Your task to perform on an android device: Open calendar and show me the second week of next month Image 0: 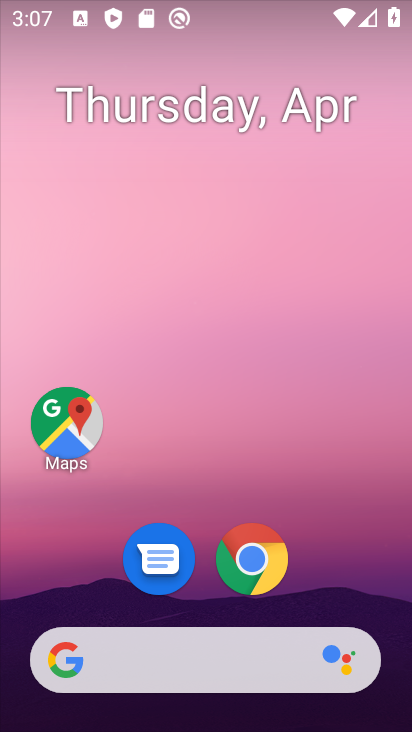
Step 0: drag from (224, 614) to (276, 249)
Your task to perform on an android device: Open calendar and show me the second week of next month Image 1: 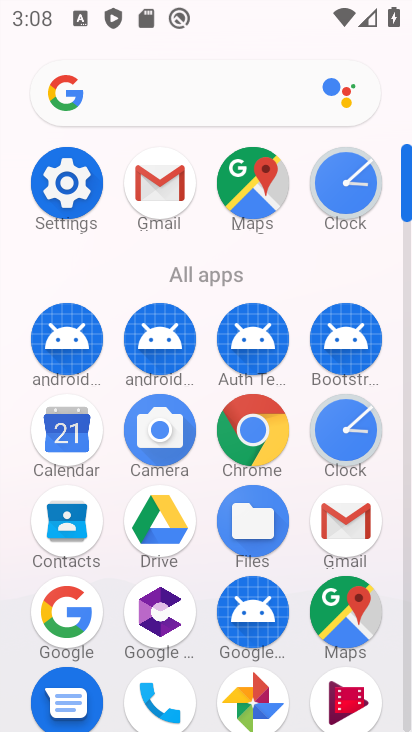
Step 1: click (72, 429)
Your task to perform on an android device: Open calendar and show me the second week of next month Image 2: 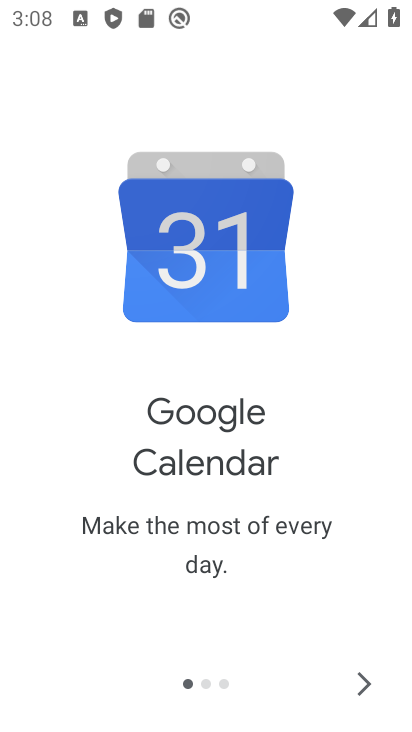
Step 2: click (354, 678)
Your task to perform on an android device: Open calendar and show me the second week of next month Image 3: 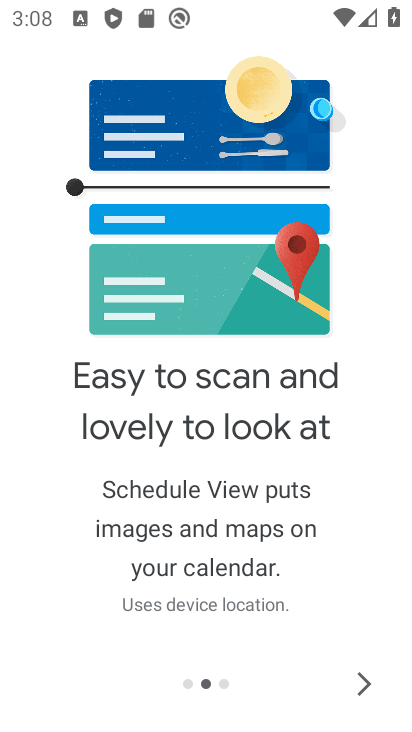
Step 3: click (354, 678)
Your task to perform on an android device: Open calendar and show me the second week of next month Image 4: 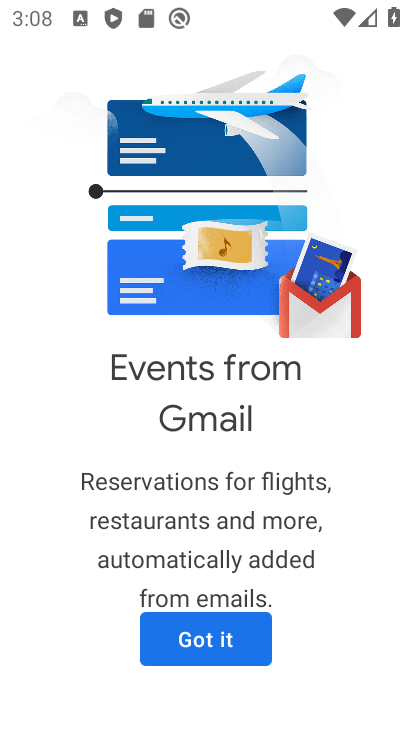
Step 4: click (253, 656)
Your task to perform on an android device: Open calendar and show me the second week of next month Image 5: 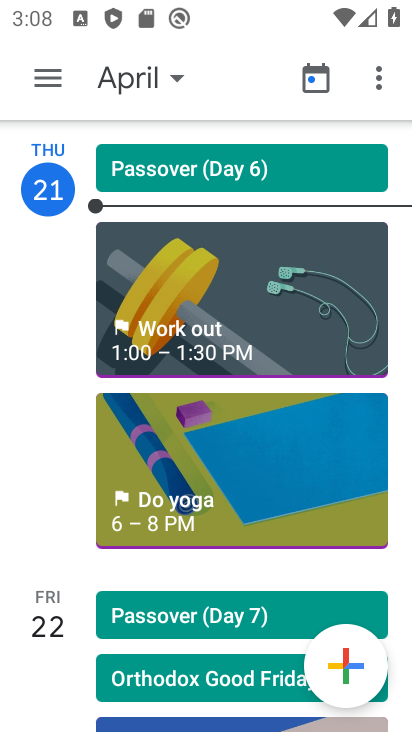
Step 5: click (158, 80)
Your task to perform on an android device: Open calendar and show me the second week of next month Image 6: 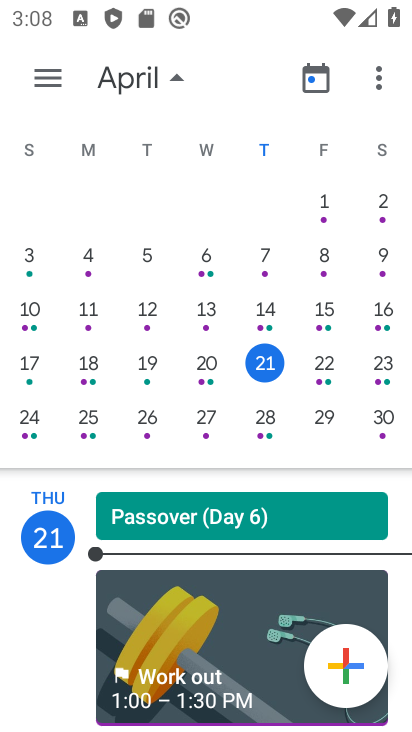
Step 6: drag from (389, 300) to (11, 190)
Your task to perform on an android device: Open calendar and show me the second week of next month Image 7: 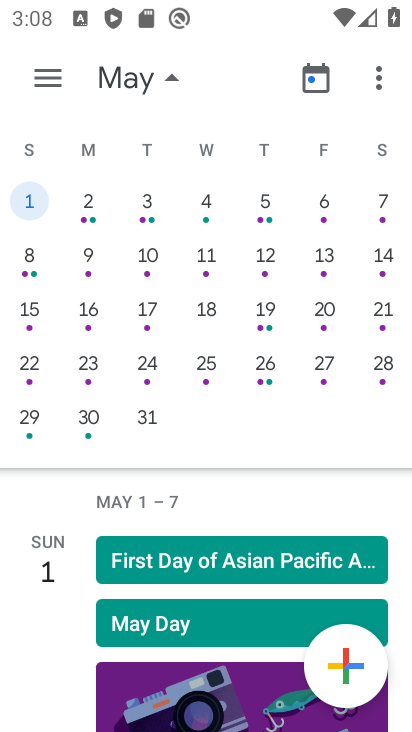
Step 7: click (47, 79)
Your task to perform on an android device: Open calendar and show me the second week of next month Image 8: 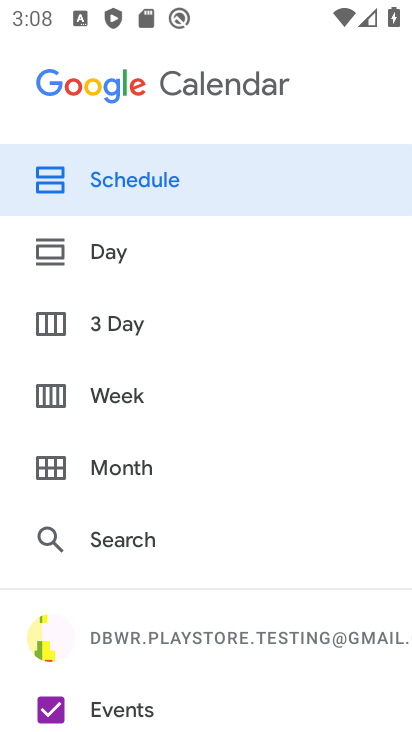
Step 8: click (153, 386)
Your task to perform on an android device: Open calendar and show me the second week of next month Image 9: 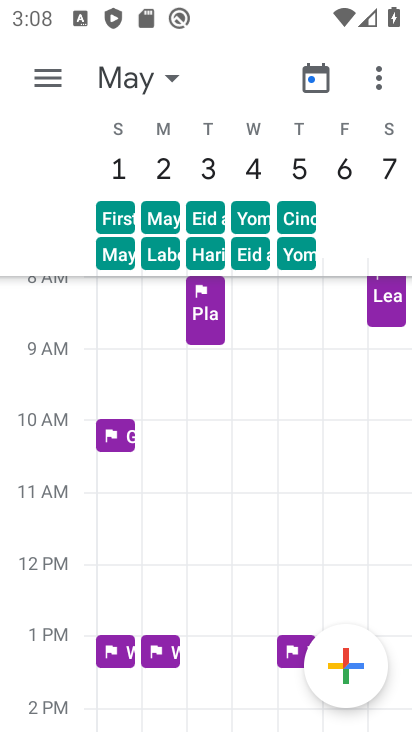
Step 9: task complete